Your task to perform on an android device: Open Google Chrome and open the bookmarks view Image 0: 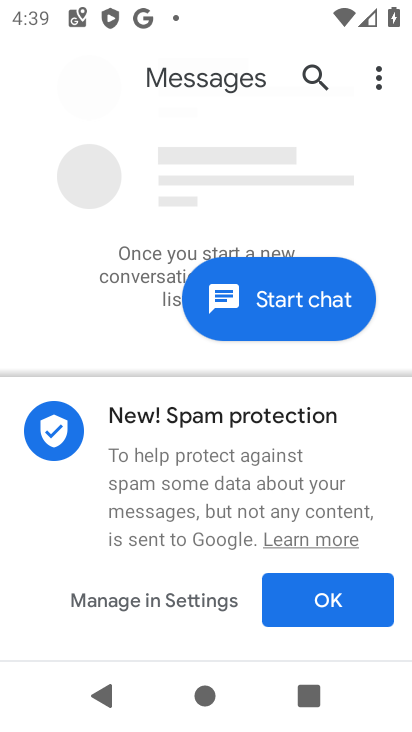
Step 0: press back button
Your task to perform on an android device: Open Google Chrome and open the bookmarks view Image 1: 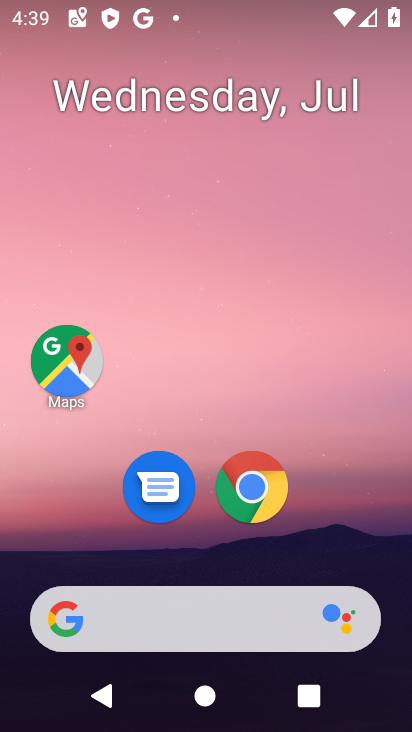
Step 1: click (256, 489)
Your task to perform on an android device: Open Google Chrome and open the bookmarks view Image 2: 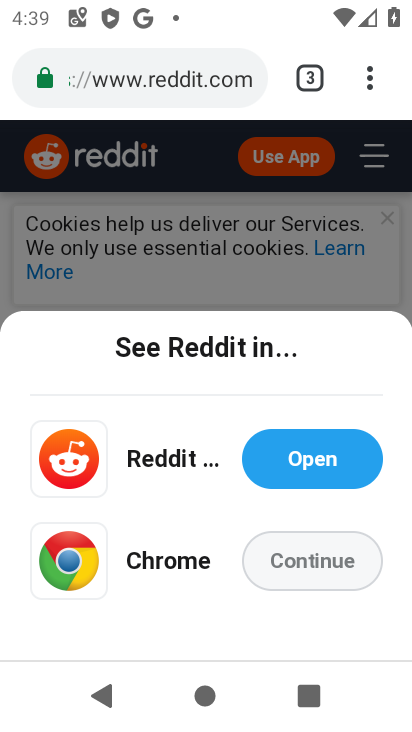
Step 2: task complete